Your task to perform on an android device: search for starred emails in the gmail app Image 0: 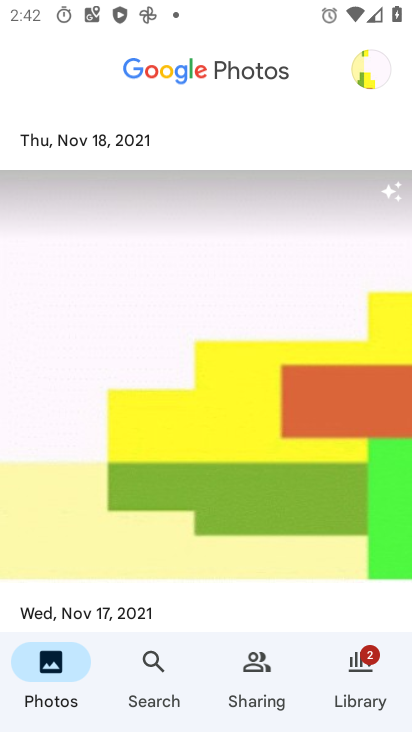
Step 0: press home button
Your task to perform on an android device: search for starred emails in the gmail app Image 1: 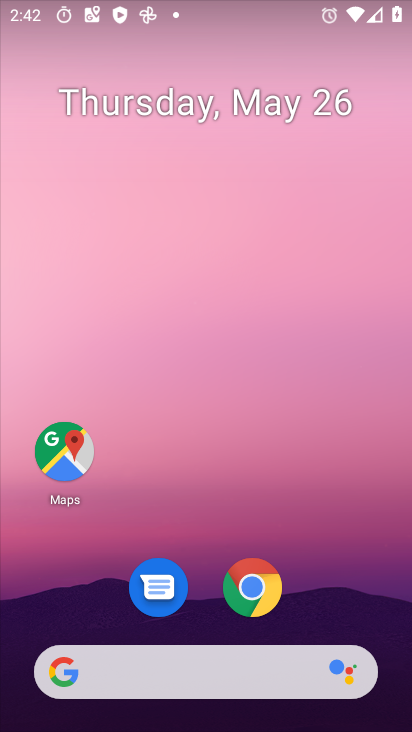
Step 1: drag from (380, 620) to (378, 284)
Your task to perform on an android device: search for starred emails in the gmail app Image 2: 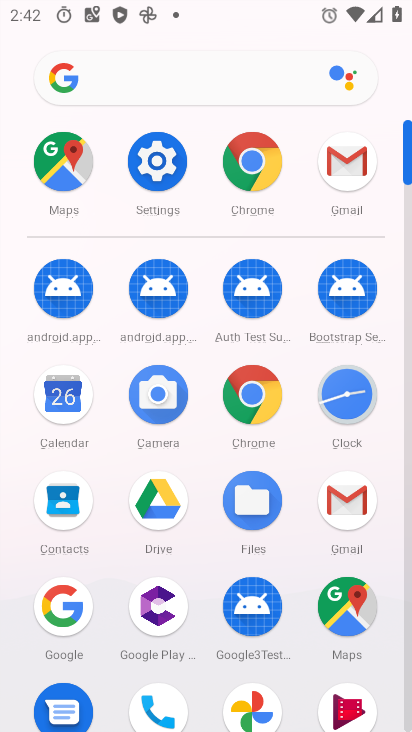
Step 2: click (360, 503)
Your task to perform on an android device: search for starred emails in the gmail app Image 3: 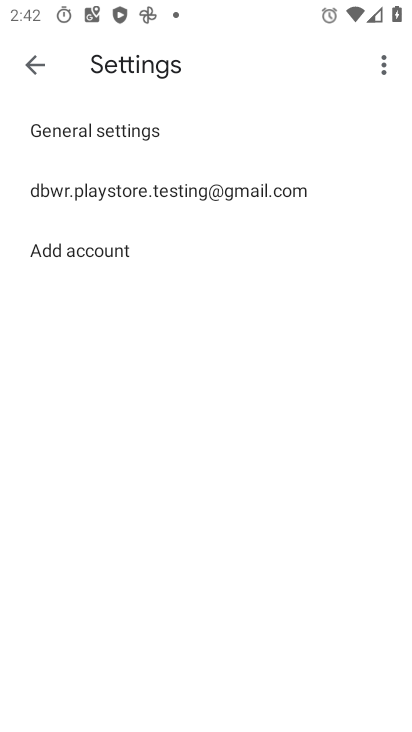
Step 3: click (35, 62)
Your task to perform on an android device: search for starred emails in the gmail app Image 4: 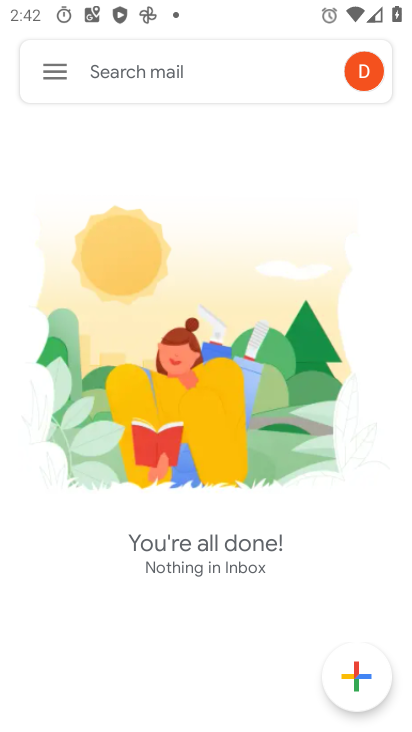
Step 4: click (58, 73)
Your task to perform on an android device: search for starred emails in the gmail app Image 5: 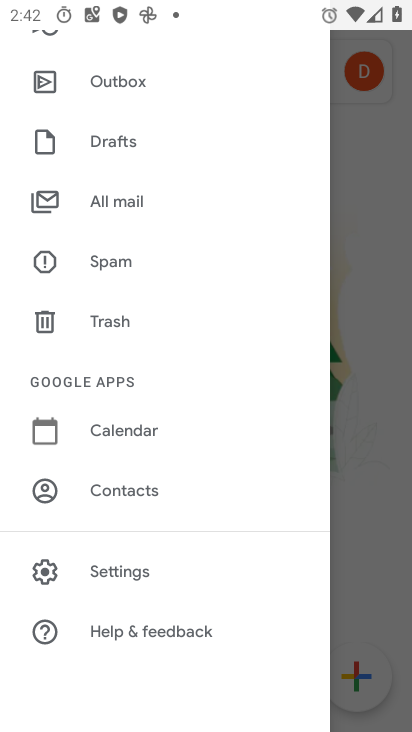
Step 5: drag from (229, 364) to (237, 429)
Your task to perform on an android device: search for starred emails in the gmail app Image 6: 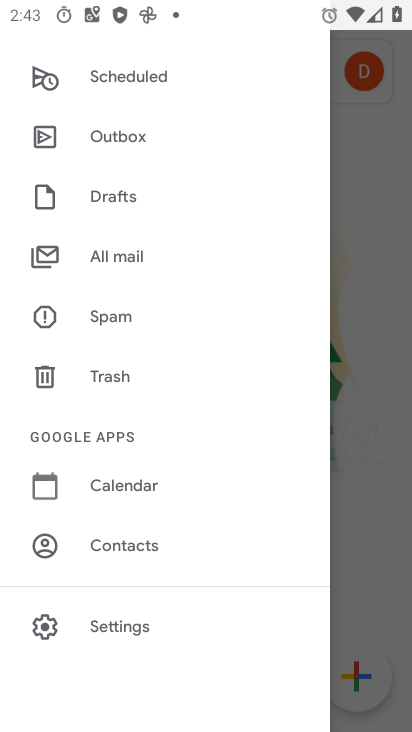
Step 6: drag from (257, 340) to (233, 416)
Your task to perform on an android device: search for starred emails in the gmail app Image 7: 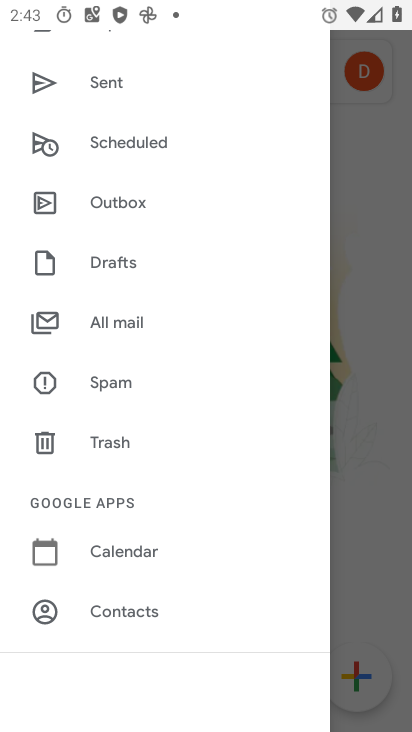
Step 7: drag from (223, 297) to (214, 388)
Your task to perform on an android device: search for starred emails in the gmail app Image 8: 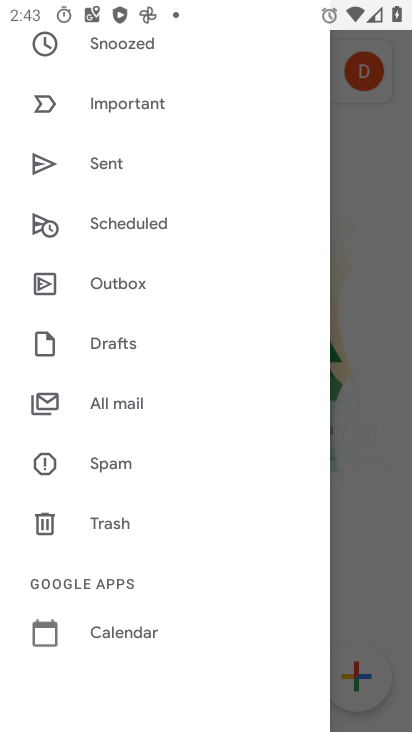
Step 8: drag from (228, 268) to (221, 333)
Your task to perform on an android device: search for starred emails in the gmail app Image 9: 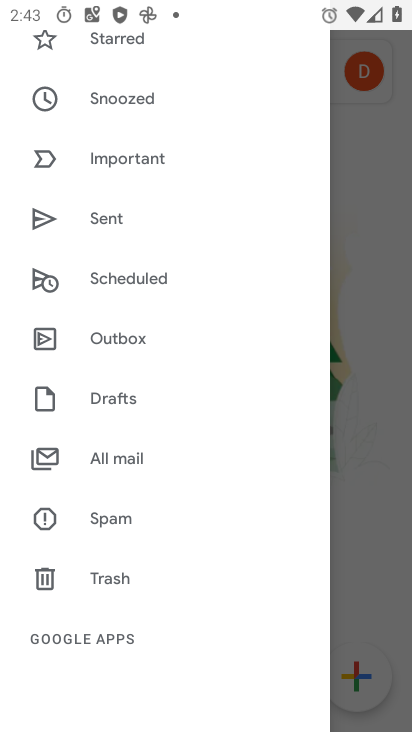
Step 9: drag from (234, 219) to (216, 297)
Your task to perform on an android device: search for starred emails in the gmail app Image 10: 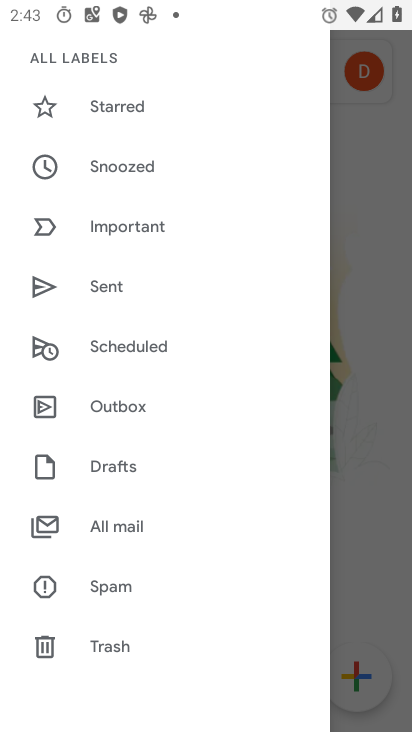
Step 10: drag from (231, 190) to (226, 268)
Your task to perform on an android device: search for starred emails in the gmail app Image 11: 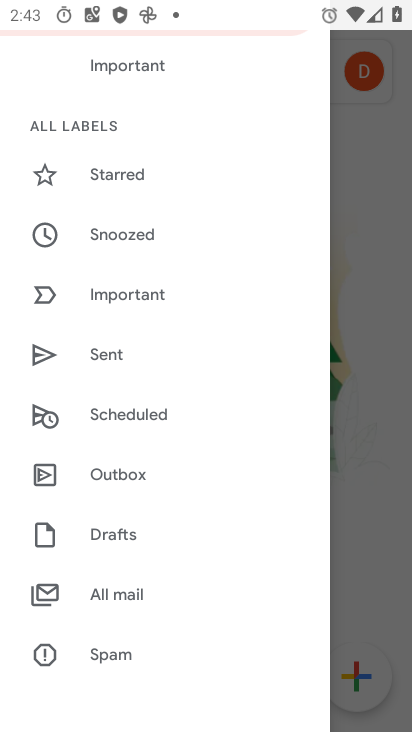
Step 11: drag from (223, 207) to (227, 274)
Your task to perform on an android device: search for starred emails in the gmail app Image 12: 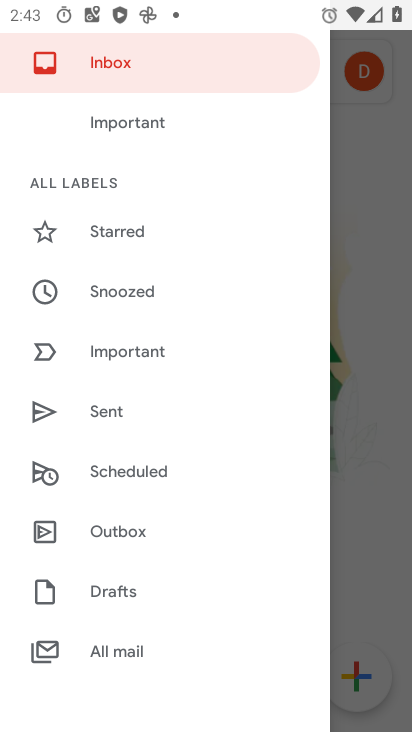
Step 12: drag from (226, 180) to (224, 254)
Your task to perform on an android device: search for starred emails in the gmail app Image 13: 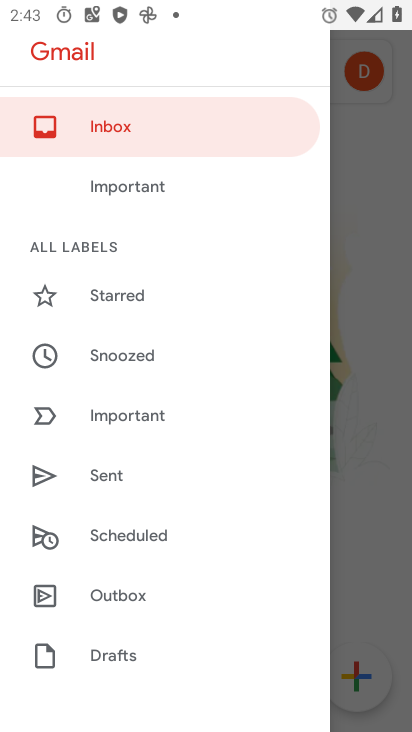
Step 13: drag from (243, 190) to (242, 256)
Your task to perform on an android device: search for starred emails in the gmail app Image 14: 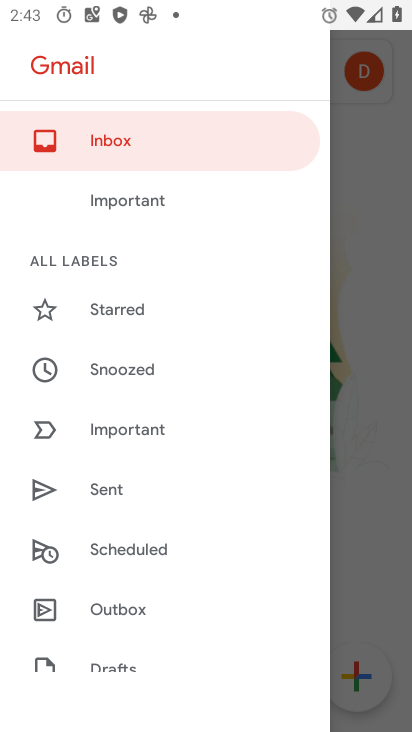
Step 14: click (144, 316)
Your task to perform on an android device: search for starred emails in the gmail app Image 15: 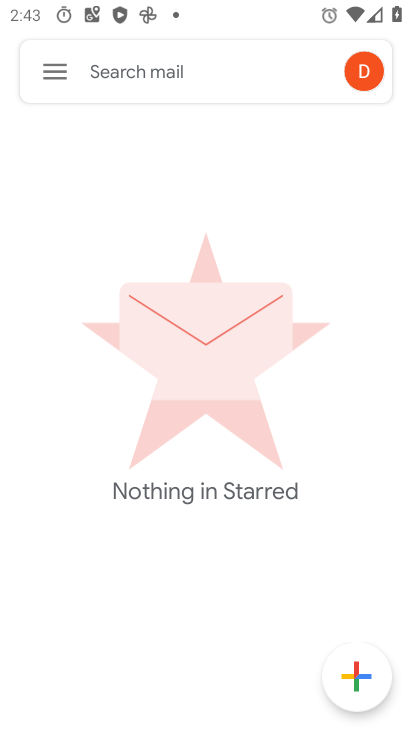
Step 15: task complete